Your task to perform on an android device: Open the stopwatch Image 0: 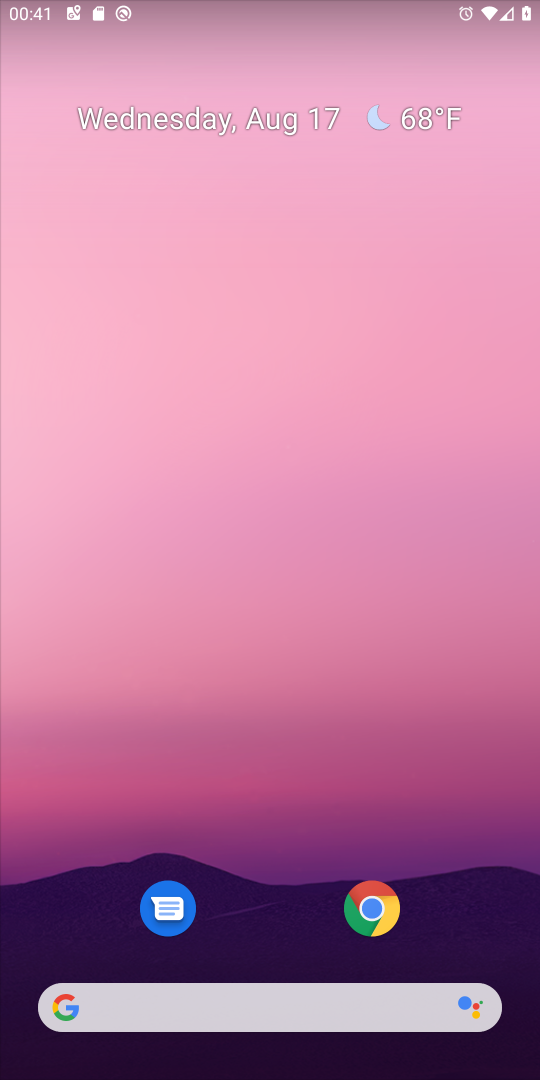
Step 0: drag from (282, 872) to (269, 201)
Your task to perform on an android device: Open the stopwatch Image 1: 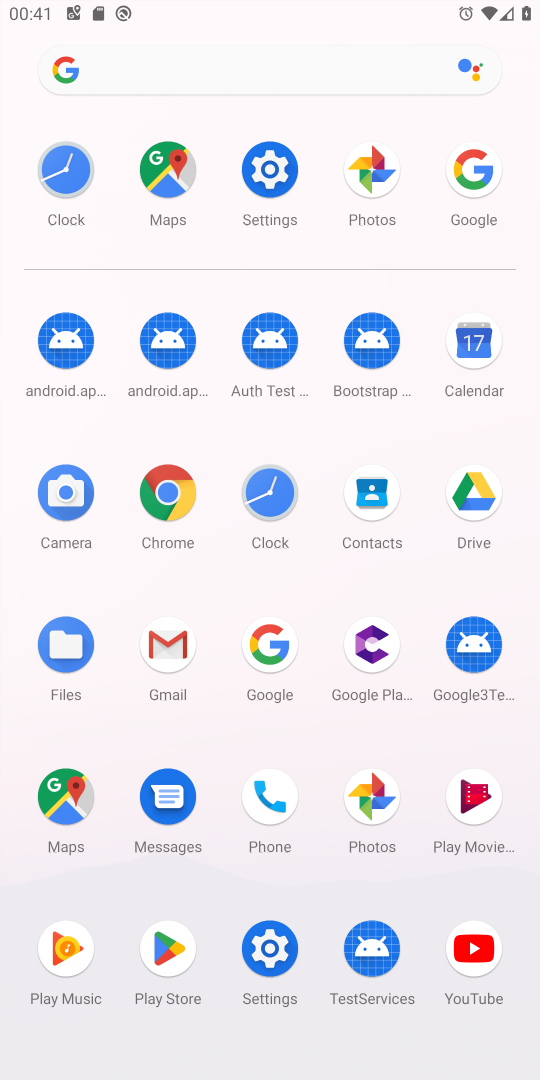
Step 1: click (282, 495)
Your task to perform on an android device: Open the stopwatch Image 2: 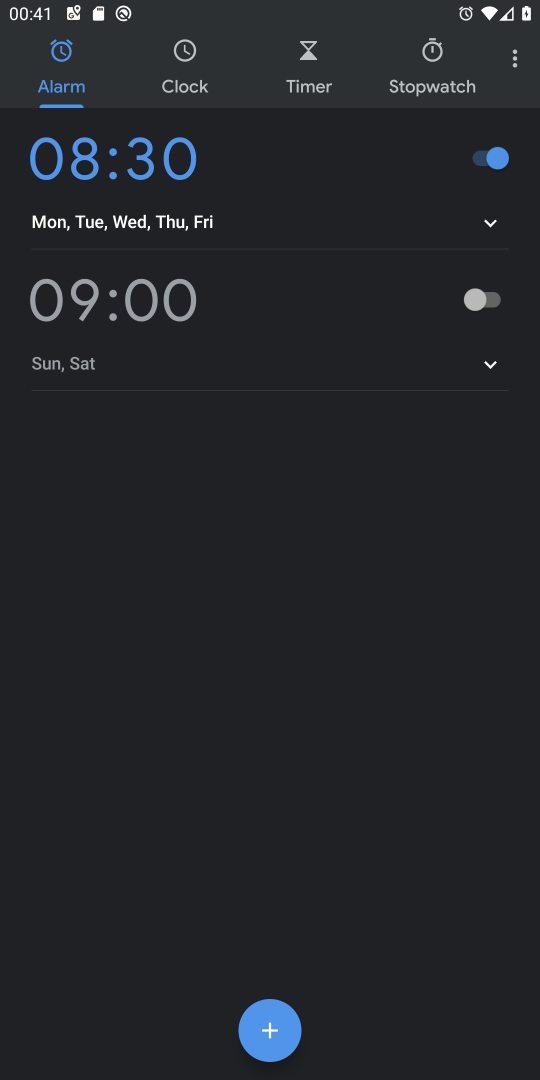
Step 2: click (455, 70)
Your task to perform on an android device: Open the stopwatch Image 3: 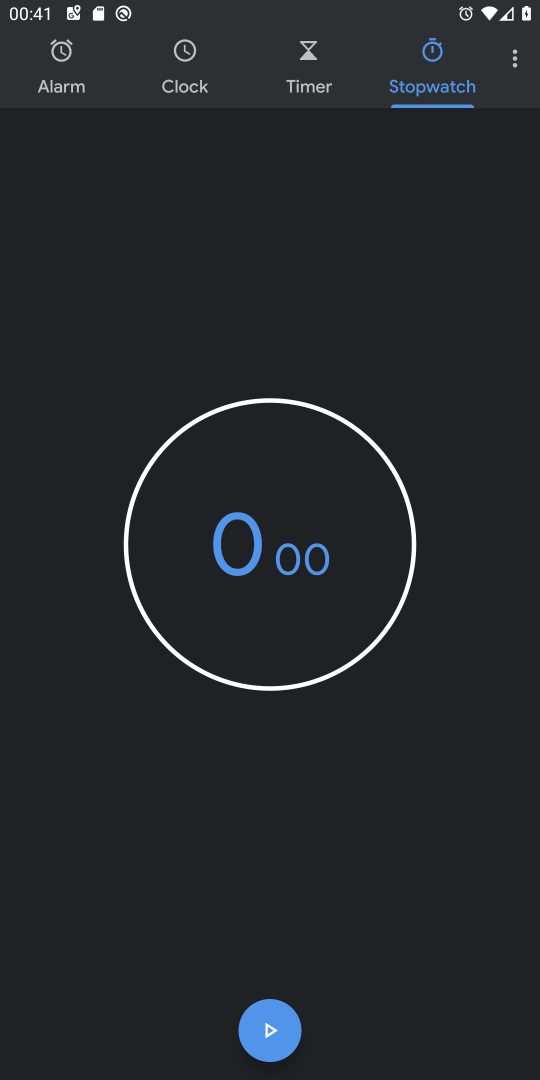
Step 3: task complete